Your task to perform on an android device: Open Reddit.com Image 0: 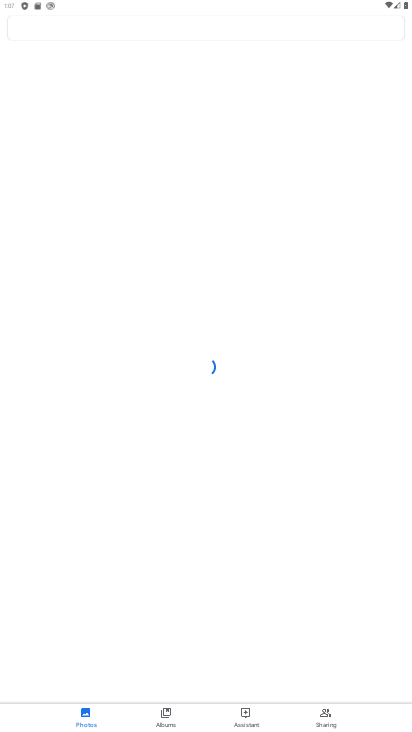
Step 0: press home button
Your task to perform on an android device: Open Reddit.com Image 1: 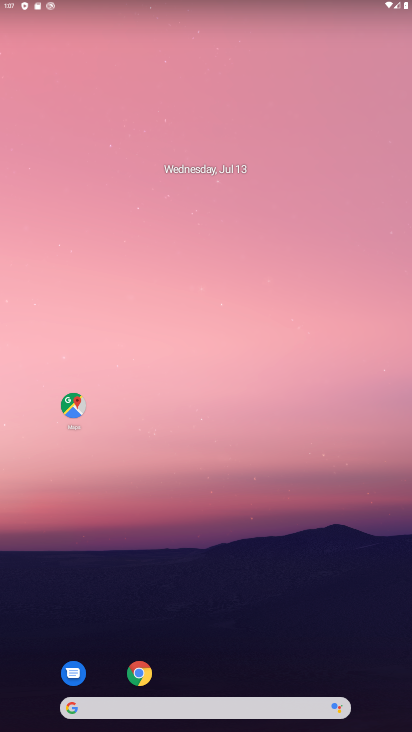
Step 1: drag from (247, 682) to (258, 149)
Your task to perform on an android device: Open Reddit.com Image 2: 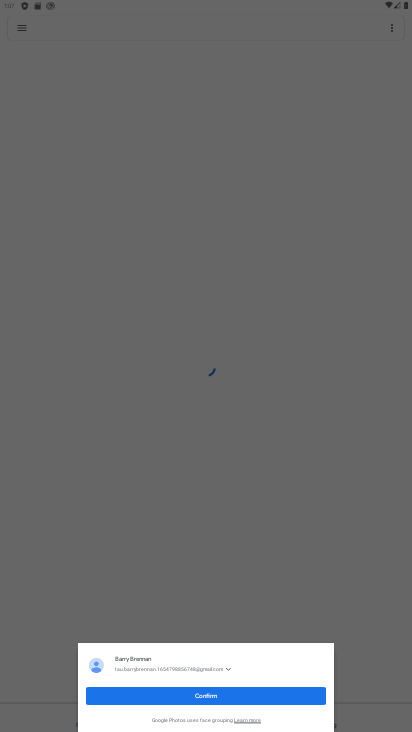
Step 2: press home button
Your task to perform on an android device: Open Reddit.com Image 3: 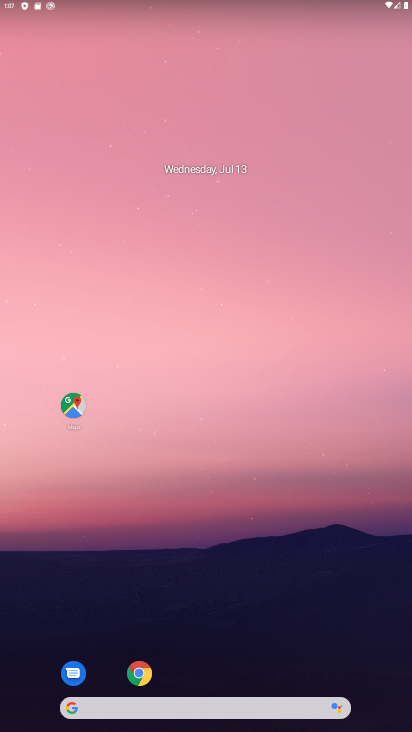
Step 3: click (139, 676)
Your task to perform on an android device: Open Reddit.com Image 4: 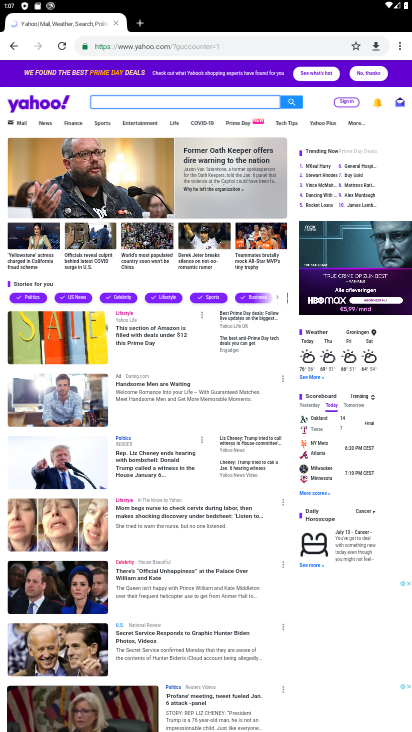
Step 4: click (136, 17)
Your task to perform on an android device: Open Reddit.com Image 5: 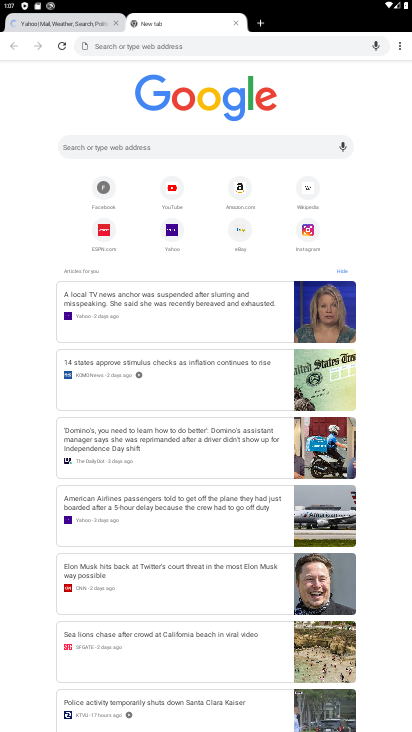
Step 5: click (183, 142)
Your task to perform on an android device: Open Reddit.com Image 6: 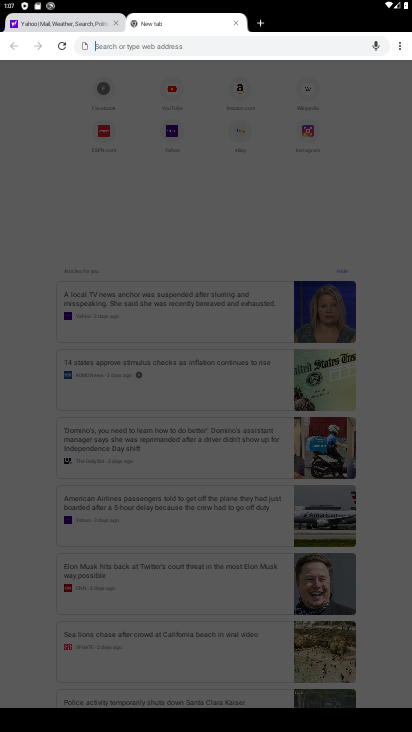
Step 6: type "Reddit.com"
Your task to perform on an android device: Open Reddit.com Image 7: 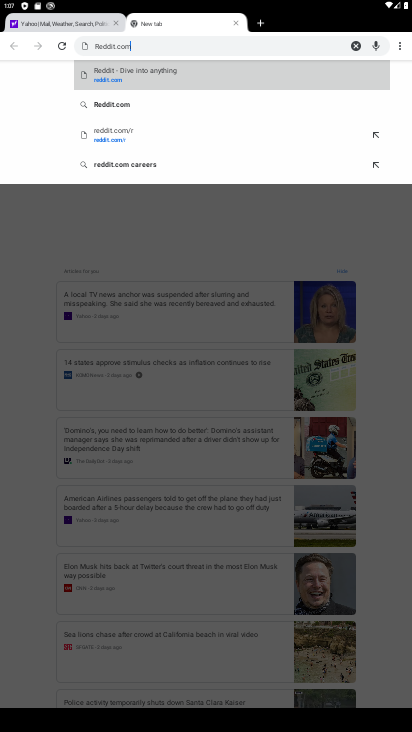
Step 7: type ""
Your task to perform on an android device: Open Reddit.com Image 8: 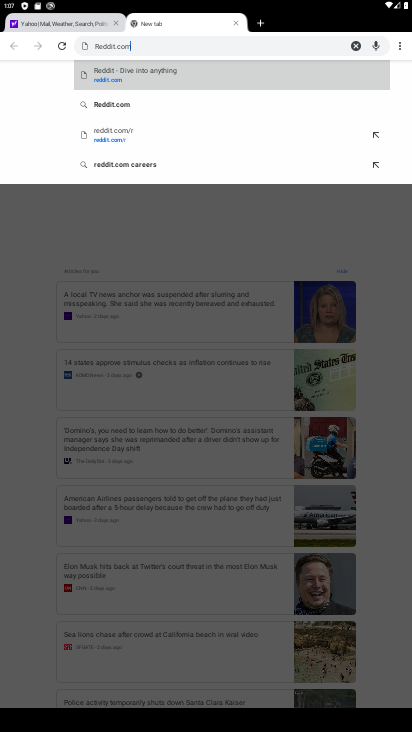
Step 8: click (221, 67)
Your task to perform on an android device: Open Reddit.com Image 9: 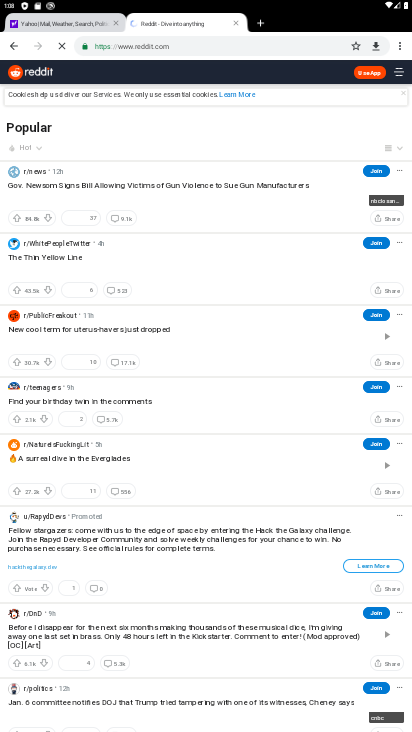
Step 9: task complete